Your task to perform on an android device: turn off notifications settings in the gmail app Image 0: 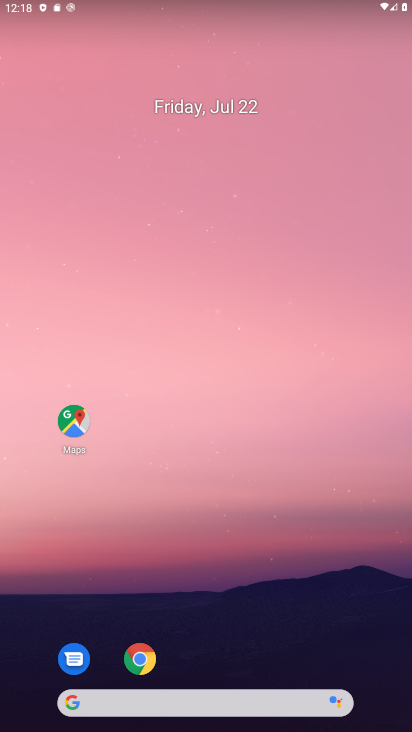
Step 0: task complete